Your task to perform on an android device: Go to display settings Image 0: 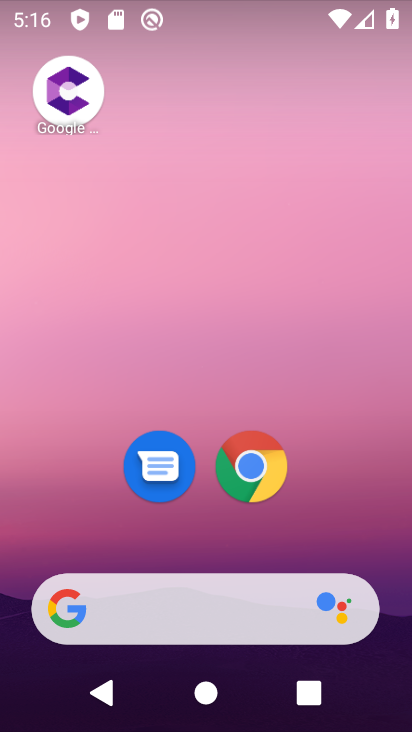
Step 0: drag from (321, 512) to (370, 30)
Your task to perform on an android device: Go to display settings Image 1: 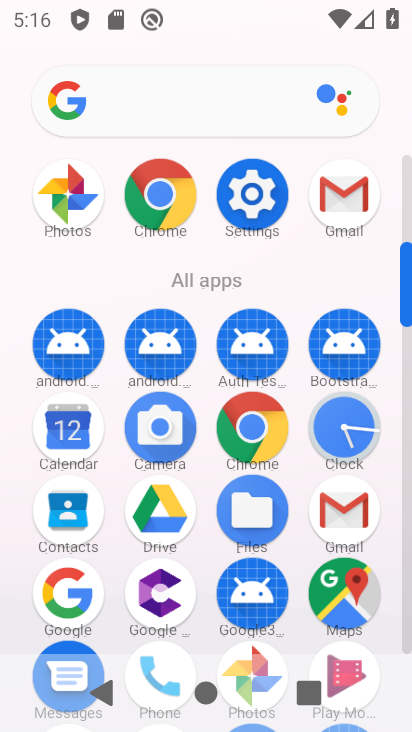
Step 1: click (242, 197)
Your task to perform on an android device: Go to display settings Image 2: 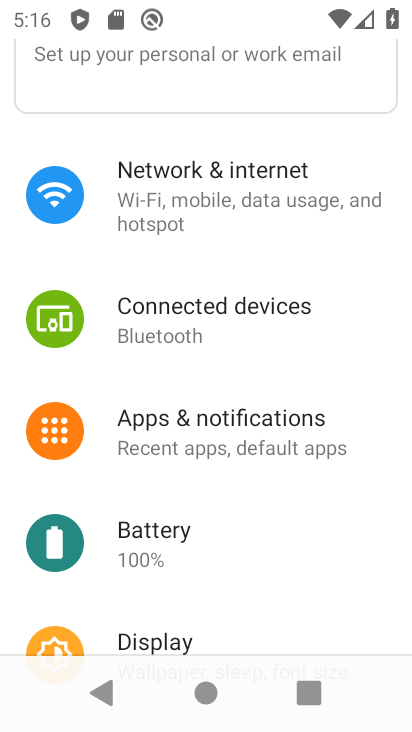
Step 2: click (146, 629)
Your task to perform on an android device: Go to display settings Image 3: 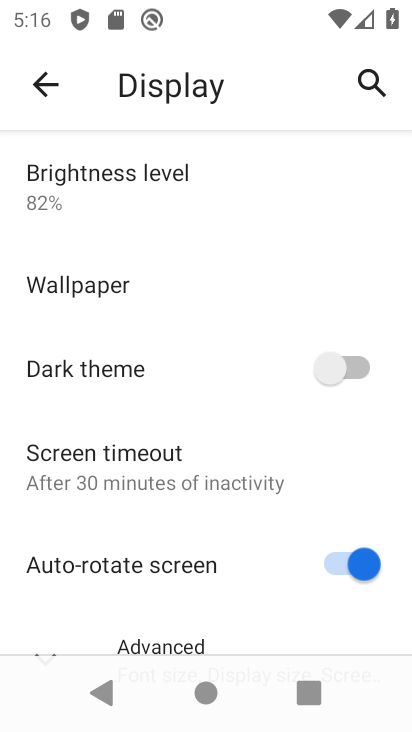
Step 3: task complete